Your task to perform on an android device: open app "Fetch Rewards" Image 0: 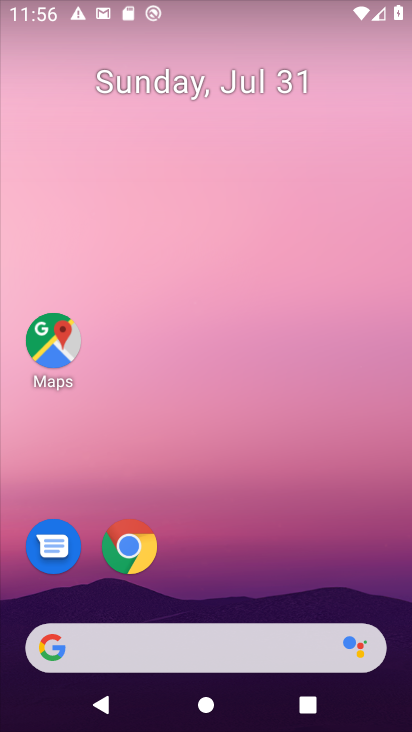
Step 0: press home button
Your task to perform on an android device: open app "Fetch Rewards" Image 1: 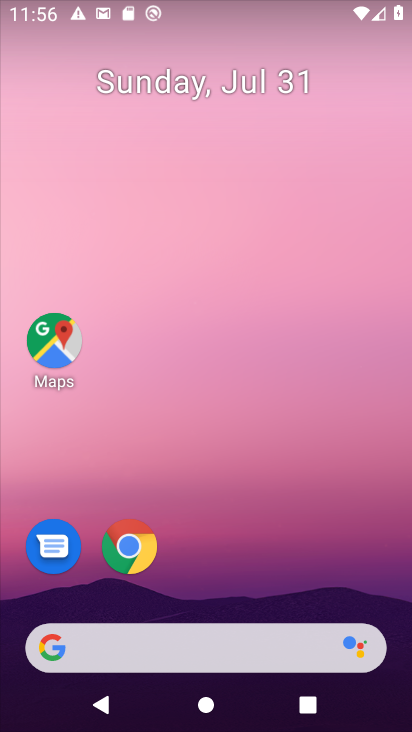
Step 1: drag from (203, 683) to (174, 5)
Your task to perform on an android device: open app "Fetch Rewards" Image 2: 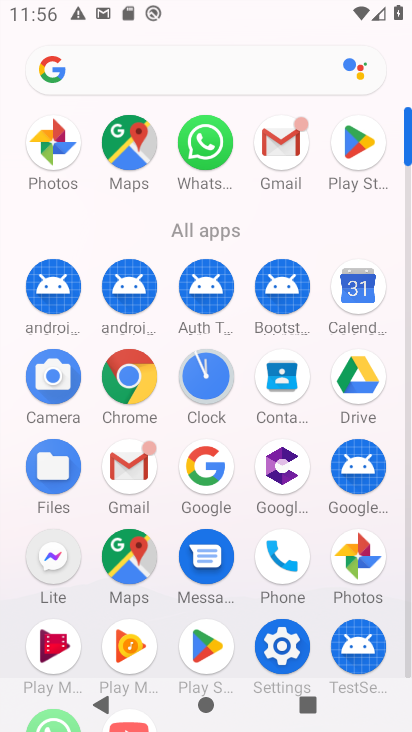
Step 2: click (361, 147)
Your task to perform on an android device: open app "Fetch Rewards" Image 3: 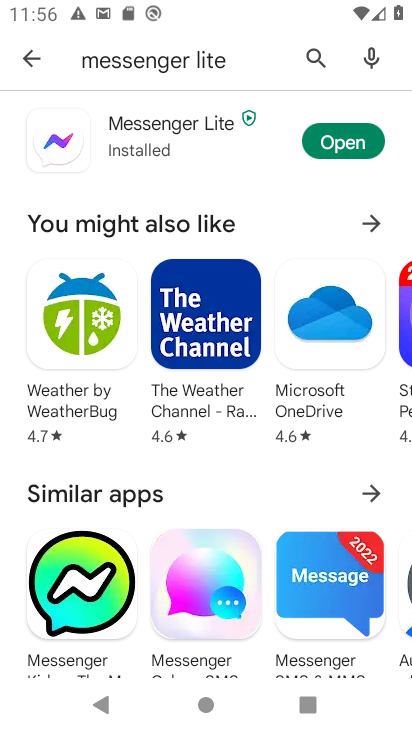
Step 3: click (314, 66)
Your task to perform on an android device: open app "Fetch Rewards" Image 4: 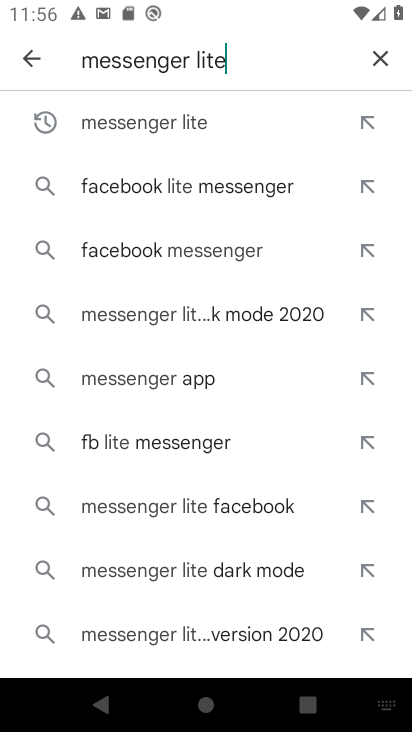
Step 4: click (381, 57)
Your task to perform on an android device: open app "Fetch Rewards" Image 5: 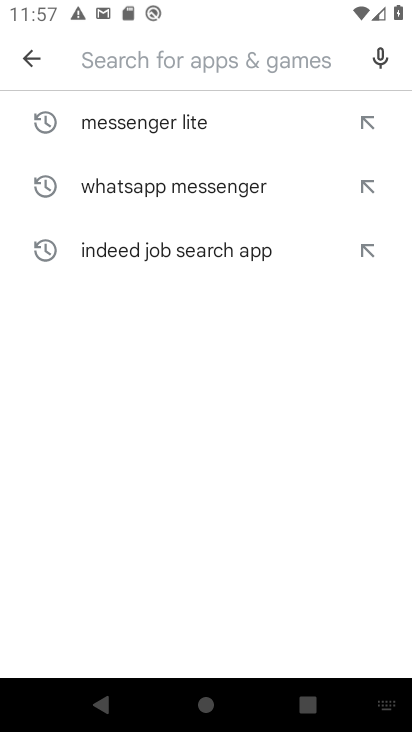
Step 5: type "Fetch Rewards"
Your task to perform on an android device: open app "Fetch Rewards" Image 6: 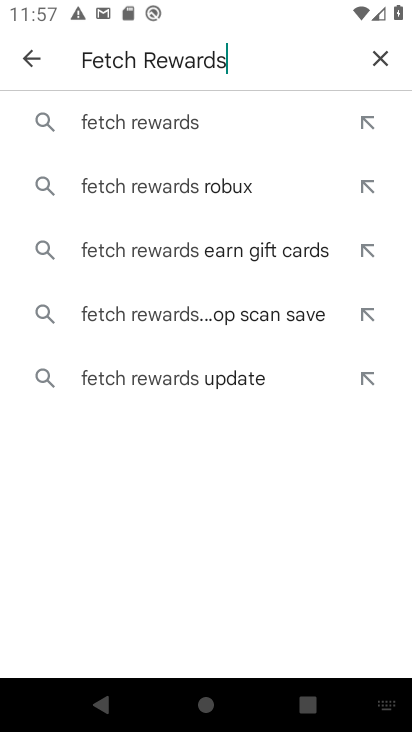
Step 6: click (132, 124)
Your task to perform on an android device: open app "Fetch Rewards" Image 7: 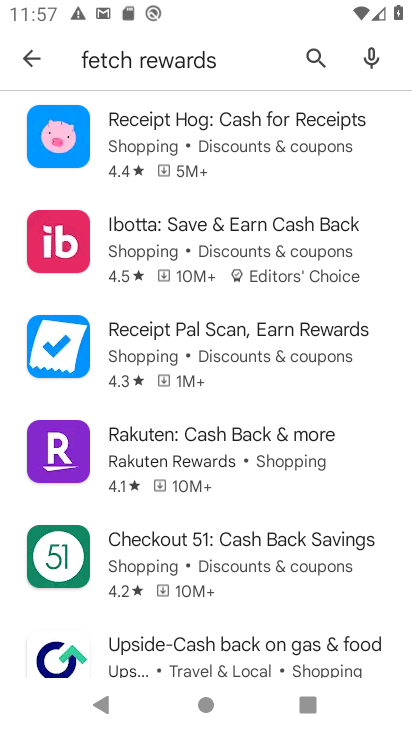
Step 7: task complete